Your task to perform on an android device: open sync settings in chrome Image 0: 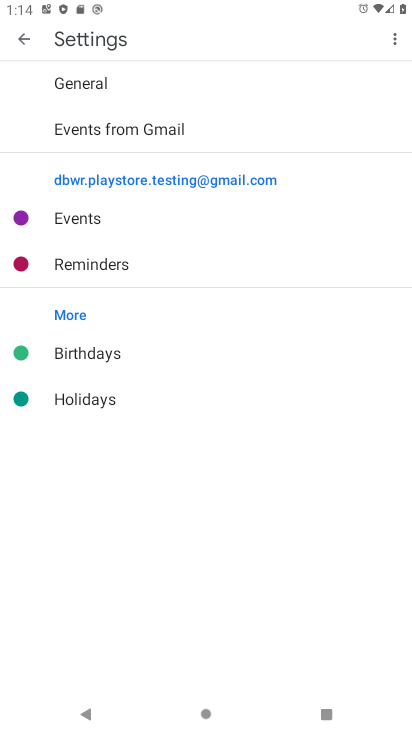
Step 0: press home button
Your task to perform on an android device: open sync settings in chrome Image 1: 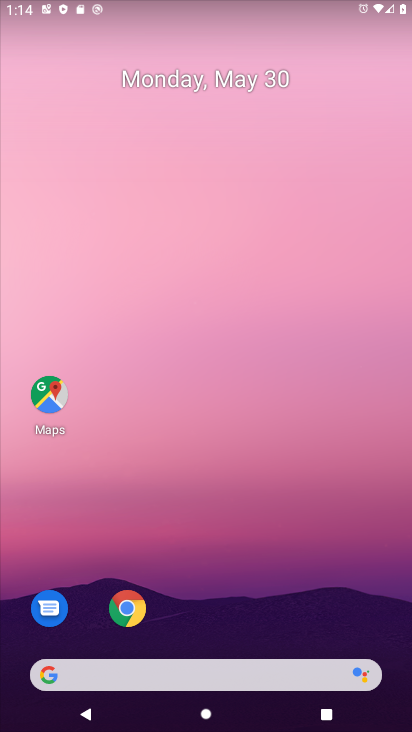
Step 1: drag from (282, 614) to (193, 106)
Your task to perform on an android device: open sync settings in chrome Image 2: 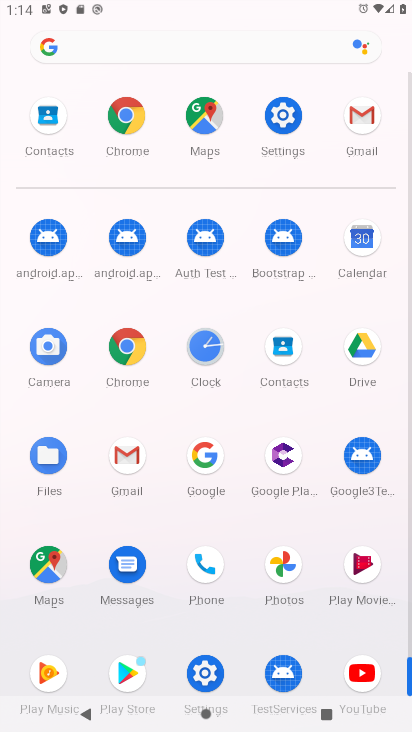
Step 2: click (130, 118)
Your task to perform on an android device: open sync settings in chrome Image 3: 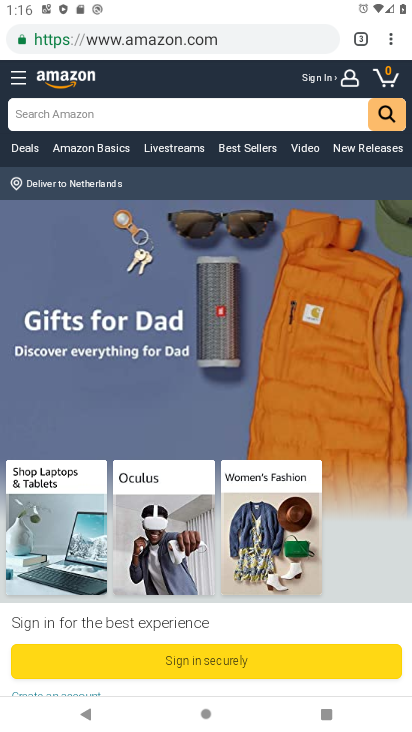
Step 3: click (398, 33)
Your task to perform on an android device: open sync settings in chrome Image 4: 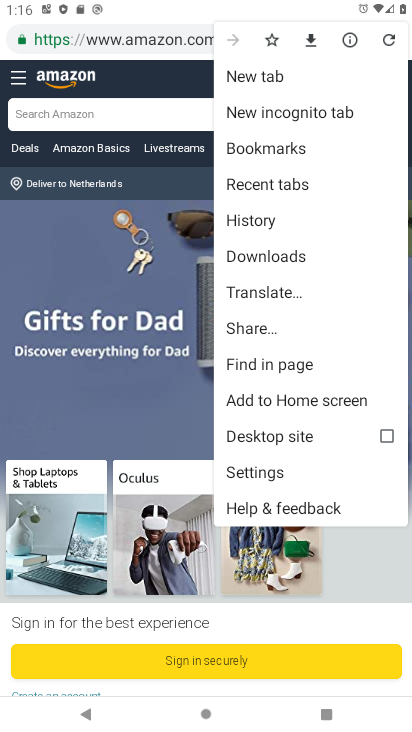
Step 4: click (281, 469)
Your task to perform on an android device: open sync settings in chrome Image 5: 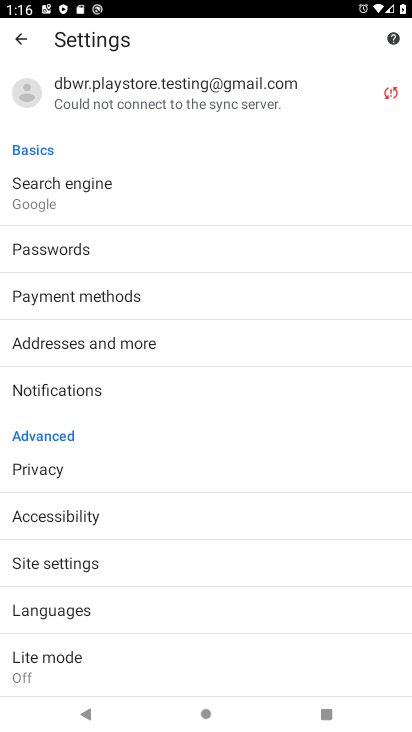
Step 5: click (102, 55)
Your task to perform on an android device: open sync settings in chrome Image 6: 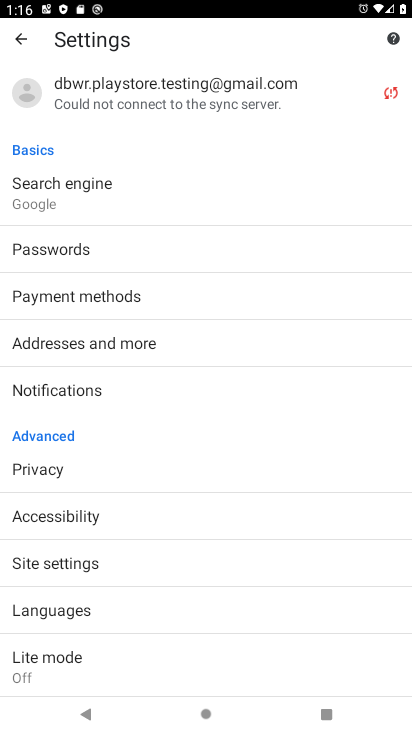
Step 6: click (84, 108)
Your task to perform on an android device: open sync settings in chrome Image 7: 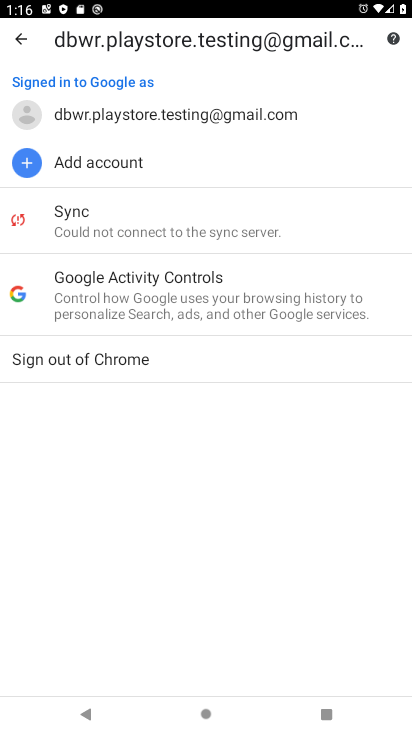
Step 7: click (111, 233)
Your task to perform on an android device: open sync settings in chrome Image 8: 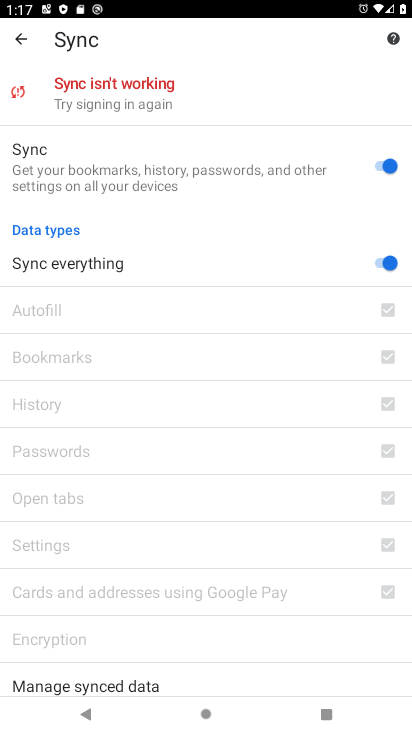
Step 8: task complete